Your task to perform on an android device: turn off notifications in google photos Image 0: 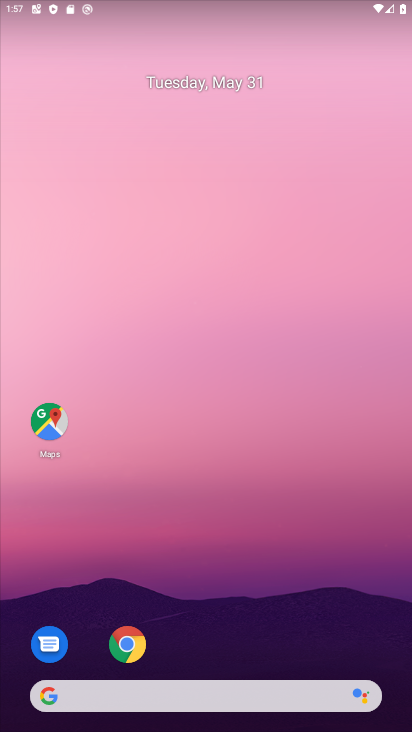
Step 0: drag from (398, 695) to (373, 314)
Your task to perform on an android device: turn off notifications in google photos Image 1: 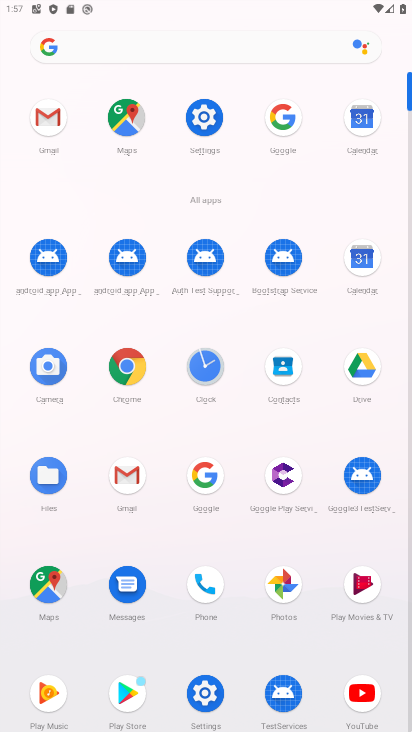
Step 1: click (291, 589)
Your task to perform on an android device: turn off notifications in google photos Image 2: 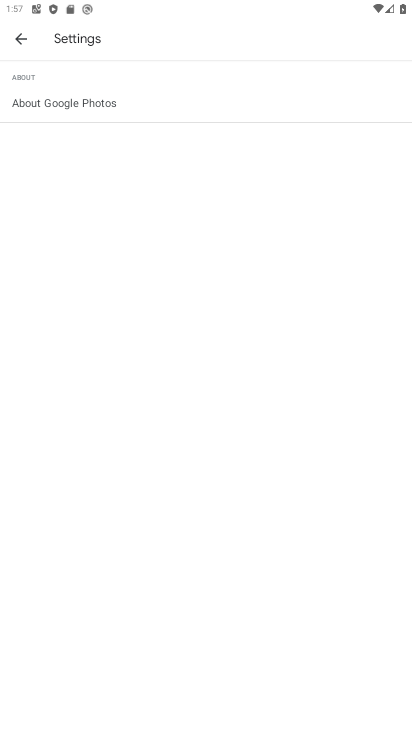
Step 2: press back button
Your task to perform on an android device: turn off notifications in google photos Image 3: 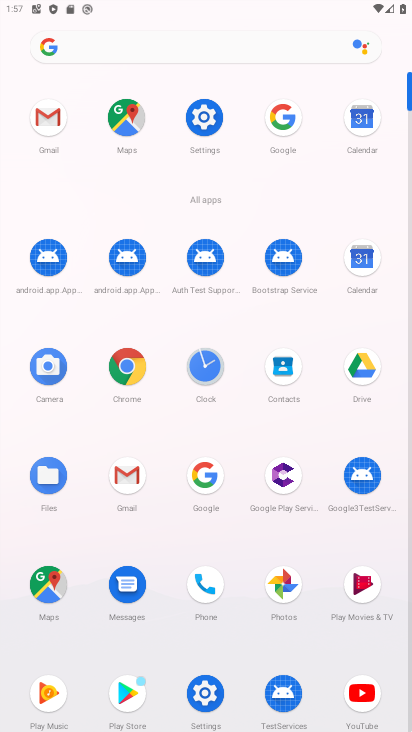
Step 3: click (288, 593)
Your task to perform on an android device: turn off notifications in google photos Image 4: 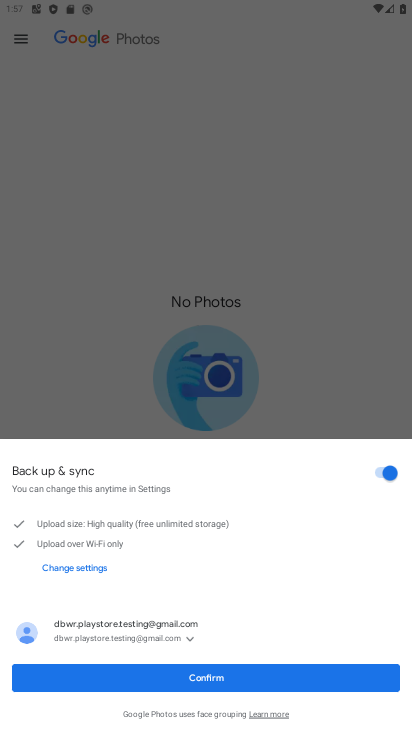
Step 4: click (262, 678)
Your task to perform on an android device: turn off notifications in google photos Image 5: 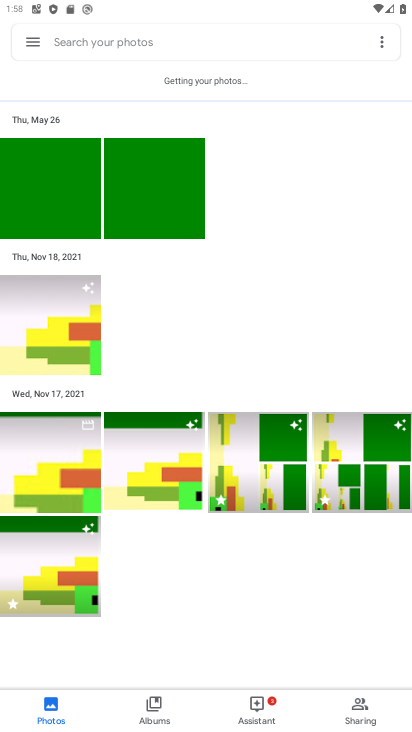
Step 5: click (30, 36)
Your task to perform on an android device: turn off notifications in google photos Image 6: 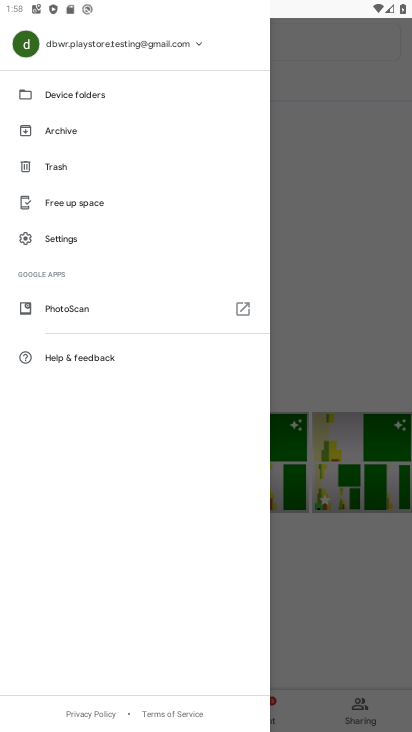
Step 6: click (59, 239)
Your task to perform on an android device: turn off notifications in google photos Image 7: 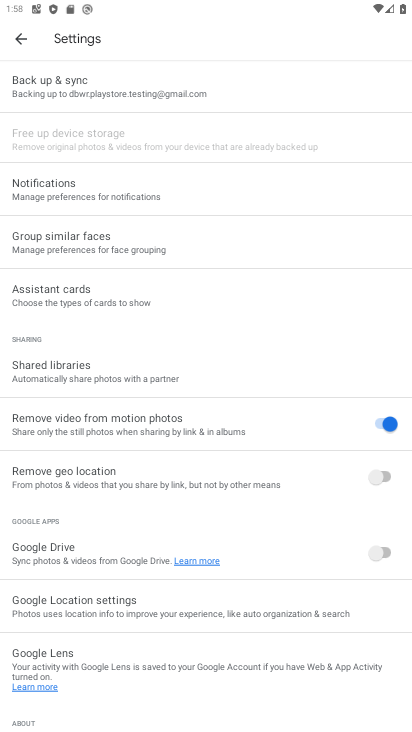
Step 7: click (59, 188)
Your task to perform on an android device: turn off notifications in google photos Image 8: 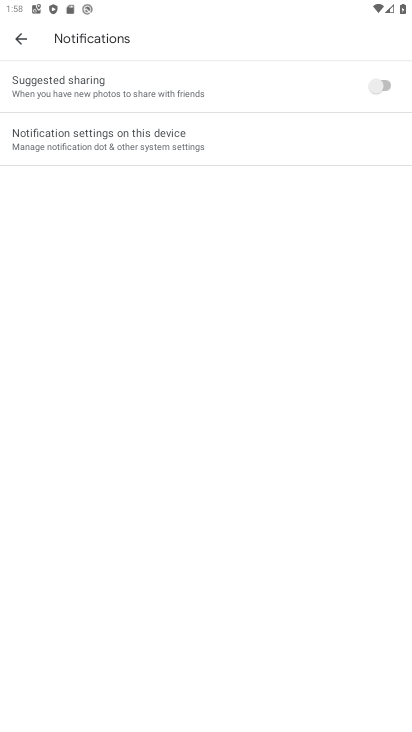
Step 8: click (383, 82)
Your task to perform on an android device: turn off notifications in google photos Image 9: 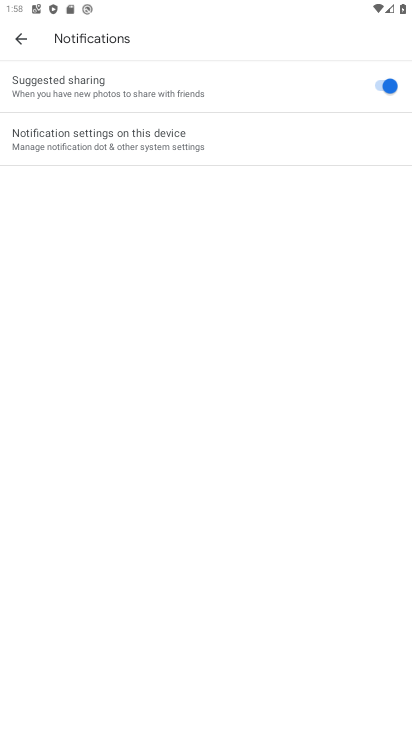
Step 9: click (382, 86)
Your task to perform on an android device: turn off notifications in google photos Image 10: 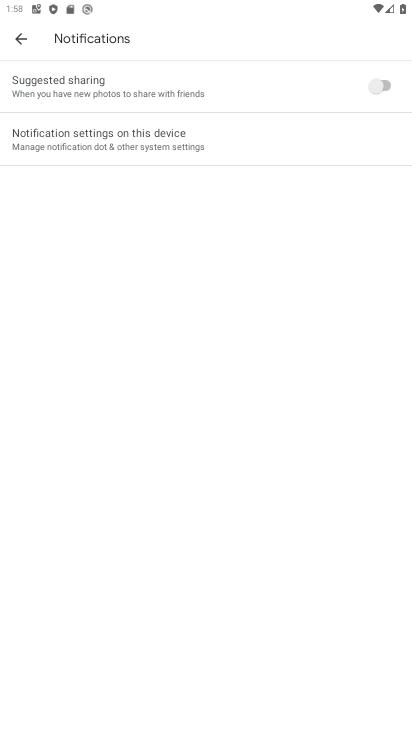
Step 10: task complete